Your task to perform on an android device: Open calendar and show me the first week of next month Image 0: 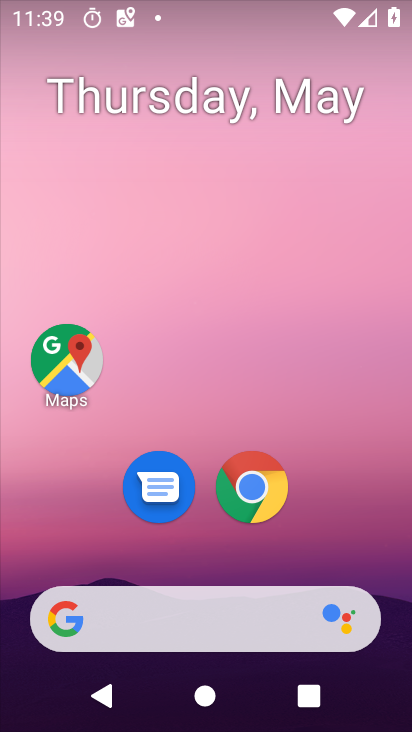
Step 0: click (199, 94)
Your task to perform on an android device: Open calendar and show me the first week of next month Image 1: 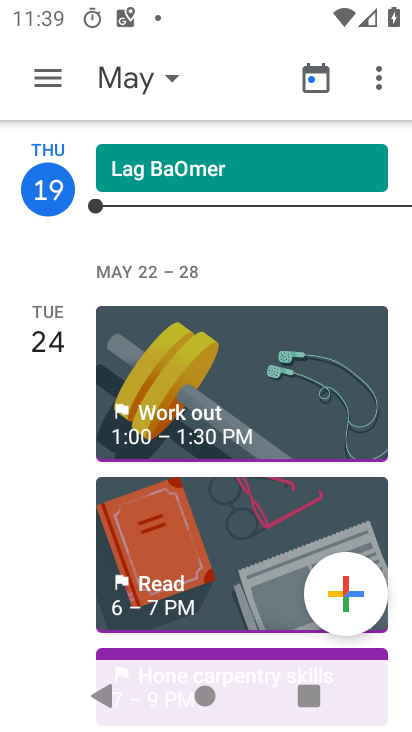
Step 1: click (144, 84)
Your task to perform on an android device: Open calendar and show me the first week of next month Image 2: 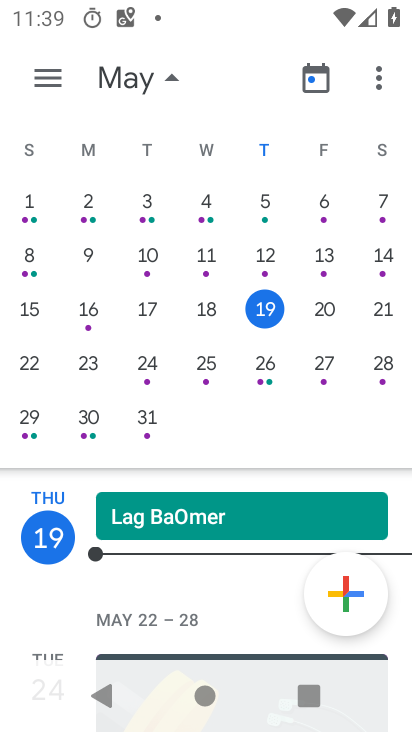
Step 2: drag from (376, 268) to (36, 283)
Your task to perform on an android device: Open calendar and show me the first week of next month Image 3: 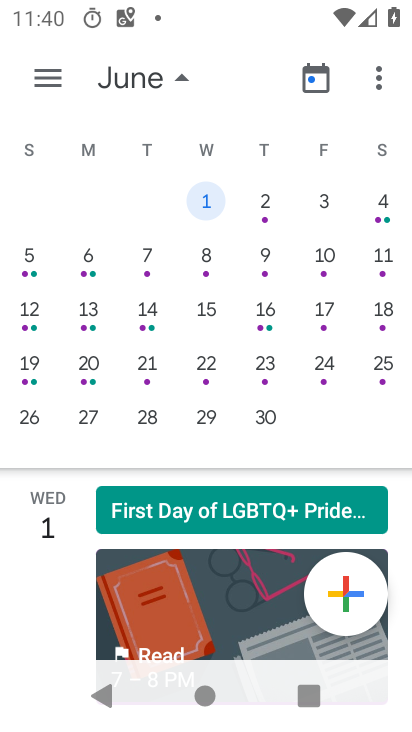
Step 3: click (40, 81)
Your task to perform on an android device: Open calendar and show me the first week of next month Image 4: 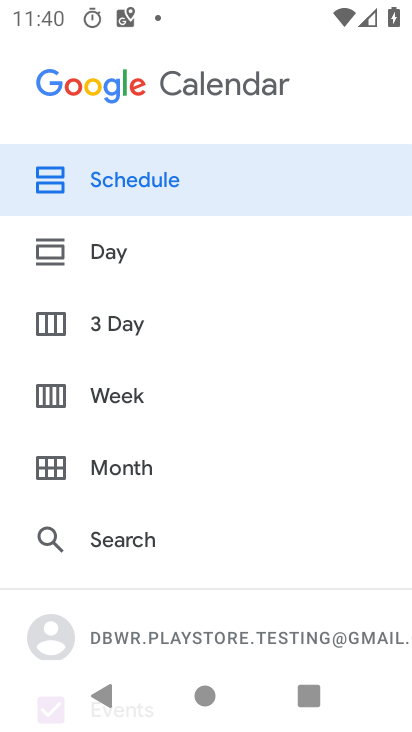
Step 4: click (120, 401)
Your task to perform on an android device: Open calendar and show me the first week of next month Image 5: 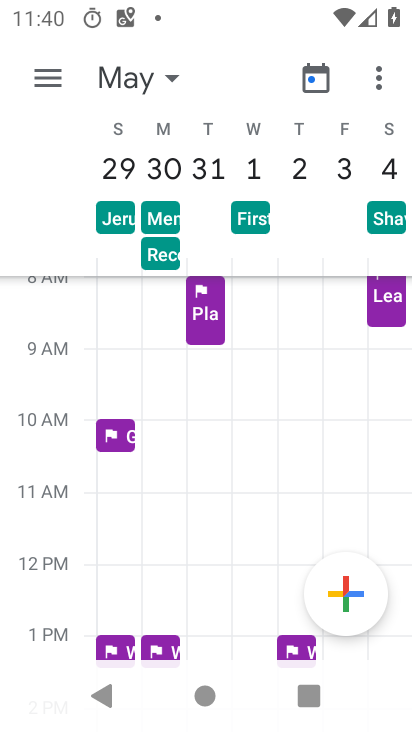
Step 5: click (155, 76)
Your task to perform on an android device: Open calendar and show me the first week of next month Image 6: 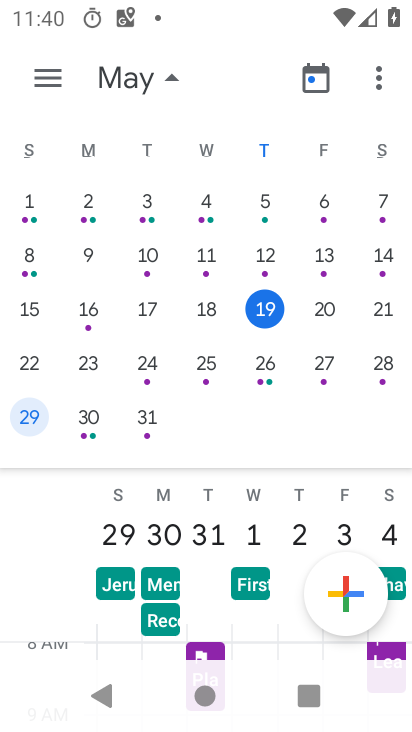
Step 6: drag from (338, 285) to (28, 264)
Your task to perform on an android device: Open calendar and show me the first week of next month Image 7: 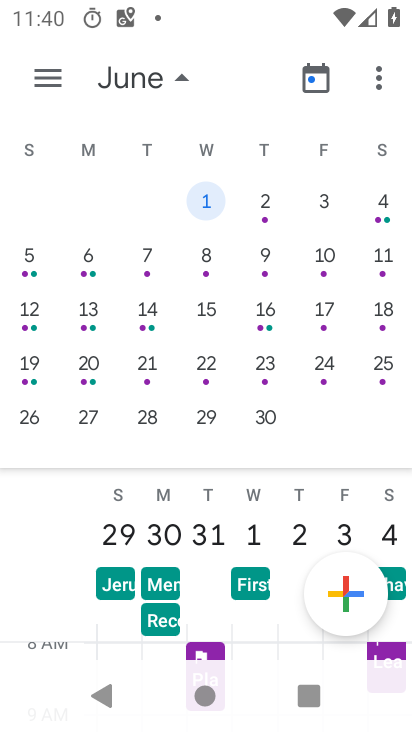
Step 7: click (266, 206)
Your task to perform on an android device: Open calendar and show me the first week of next month Image 8: 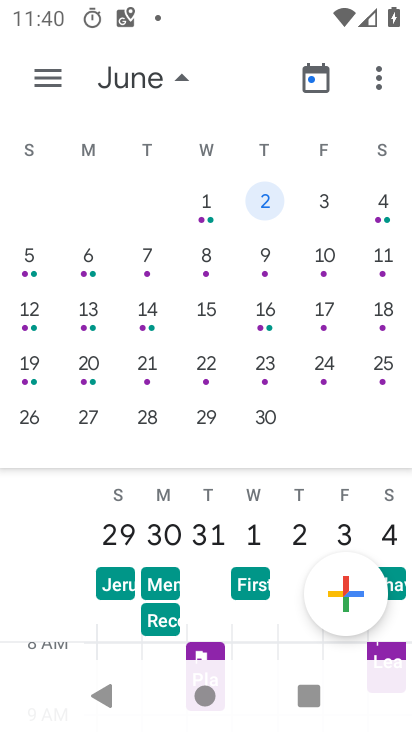
Step 8: task complete